Your task to perform on an android device: Find coffee shops on Maps Image 0: 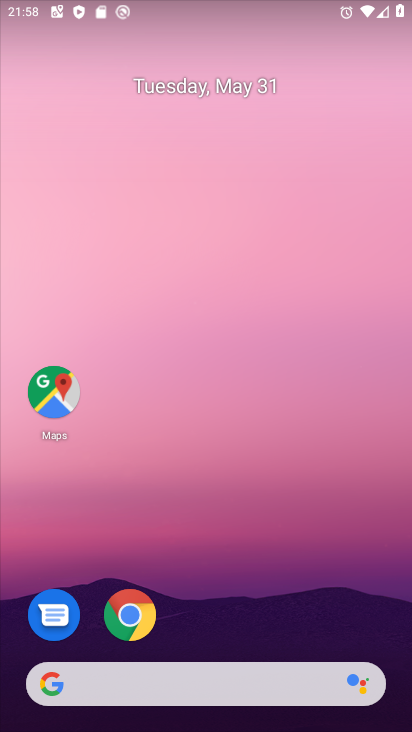
Step 0: click (59, 412)
Your task to perform on an android device: Find coffee shops on Maps Image 1: 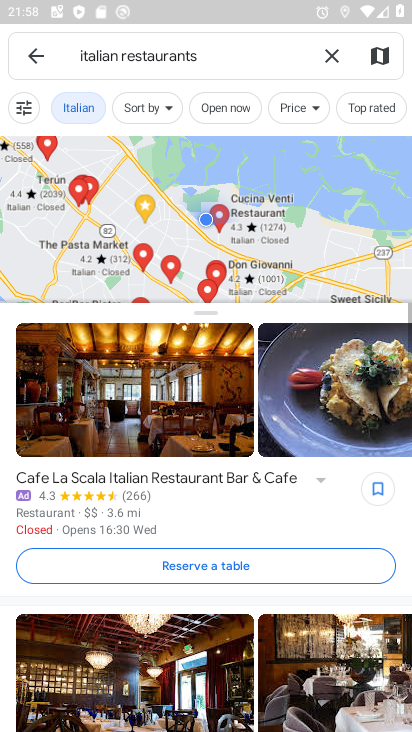
Step 1: click (331, 56)
Your task to perform on an android device: Find coffee shops on Maps Image 2: 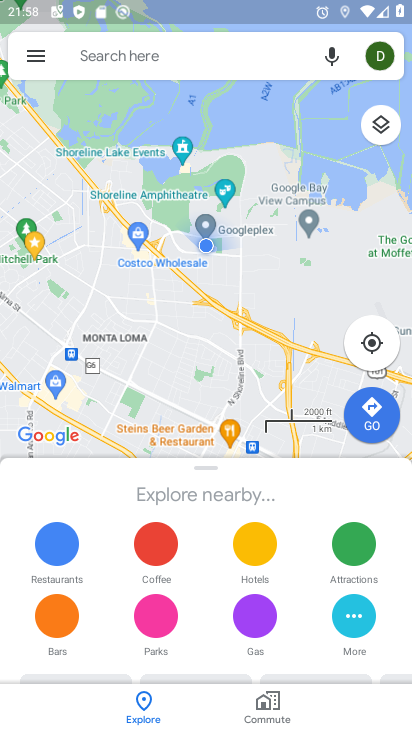
Step 2: click (241, 48)
Your task to perform on an android device: Find coffee shops on Maps Image 3: 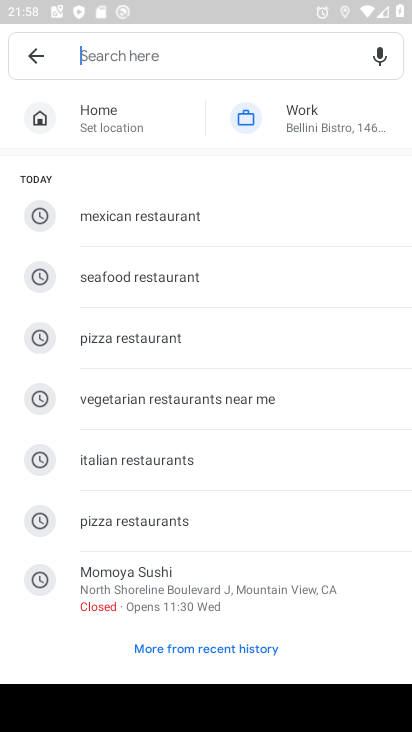
Step 3: type "coffee shops"
Your task to perform on an android device: Find coffee shops on Maps Image 4: 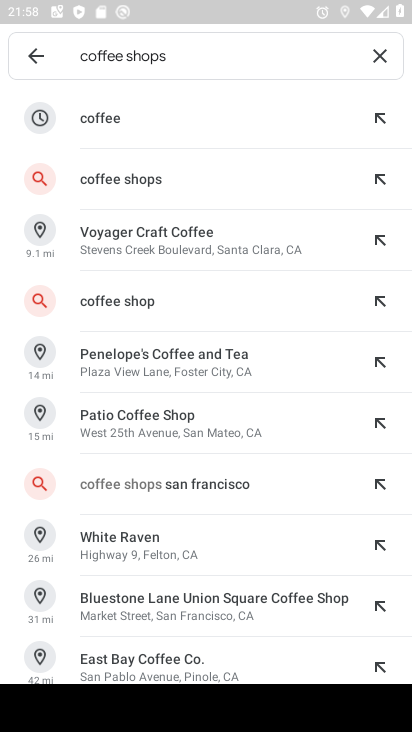
Step 4: click (173, 178)
Your task to perform on an android device: Find coffee shops on Maps Image 5: 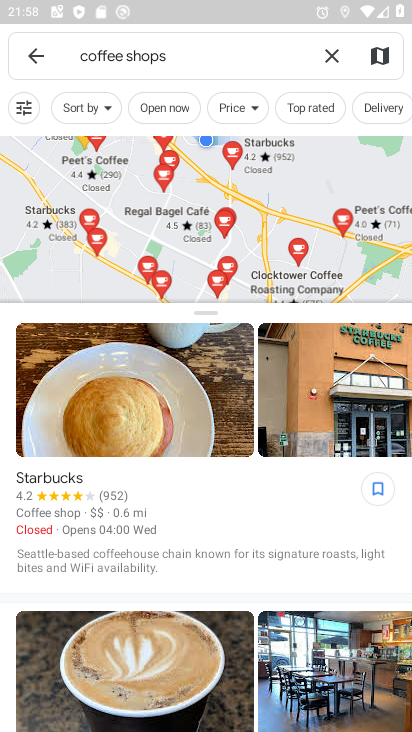
Step 5: task complete